Your task to perform on an android device: change timer sound Image 0: 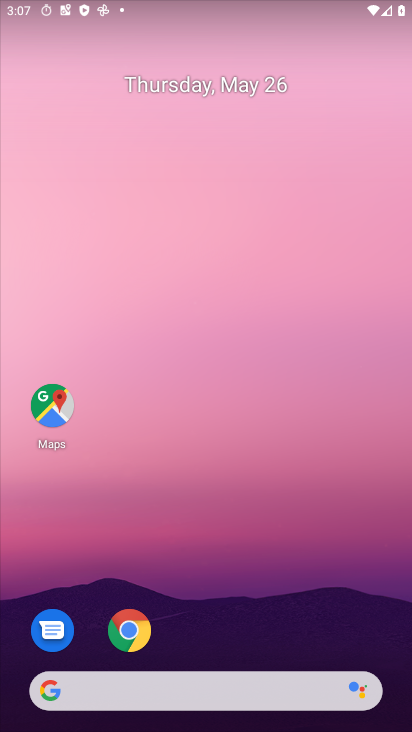
Step 0: drag from (301, 502) to (301, 351)
Your task to perform on an android device: change timer sound Image 1: 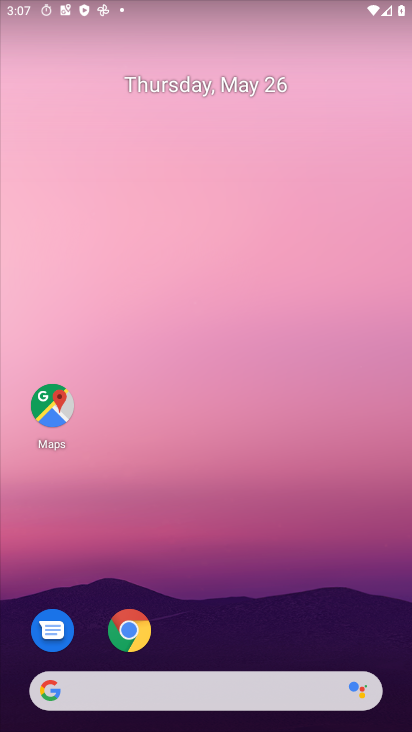
Step 1: drag from (309, 554) to (308, 221)
Your task to perform on an android device: change timer sound Image 2: 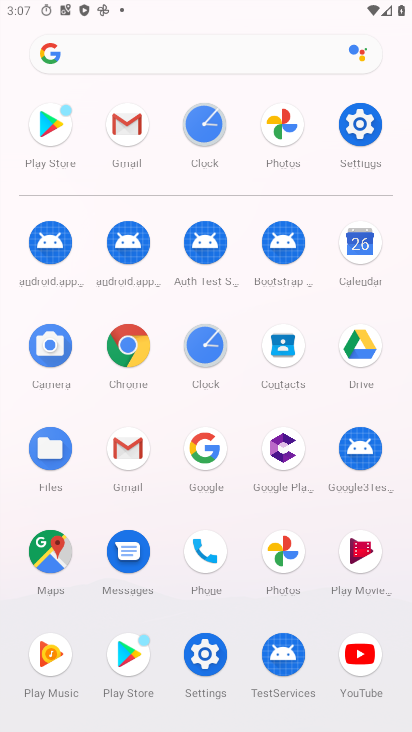
Step 2: click (365, 115)
Your task to perform on an android device: change timer sound Image 3: 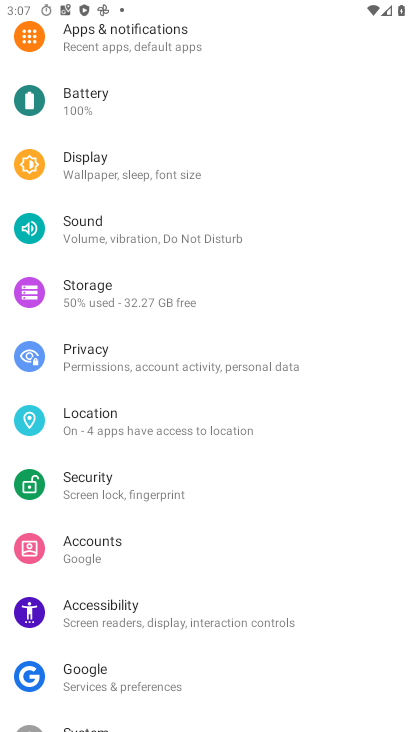
Step 3: press home button
Your task to perform on an android device: change timer sound Image 4: 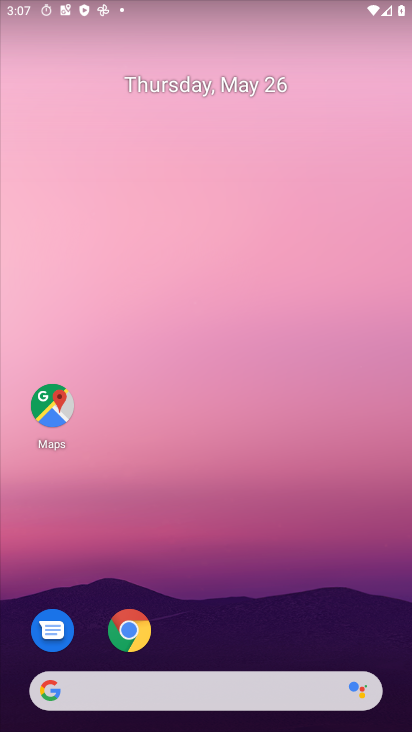
Step 4: drag from (244, 622) to (225, 364)
Your task to perform on an android device: change timer sound Image 5: 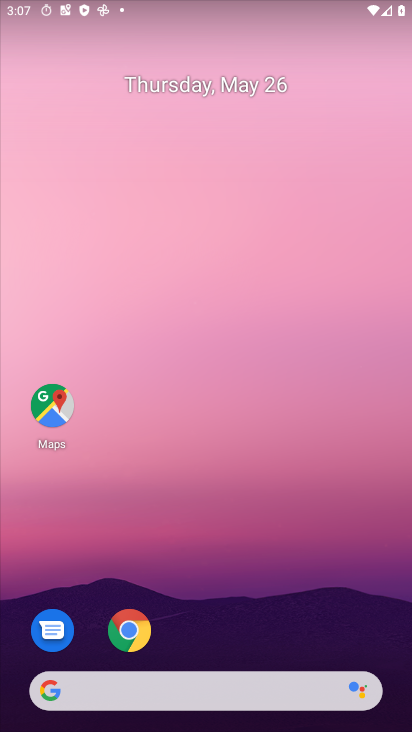
Step 5: drag from (239, 506) to (187, 147)
Your task to perform on an android device: change timer sound Image 6: 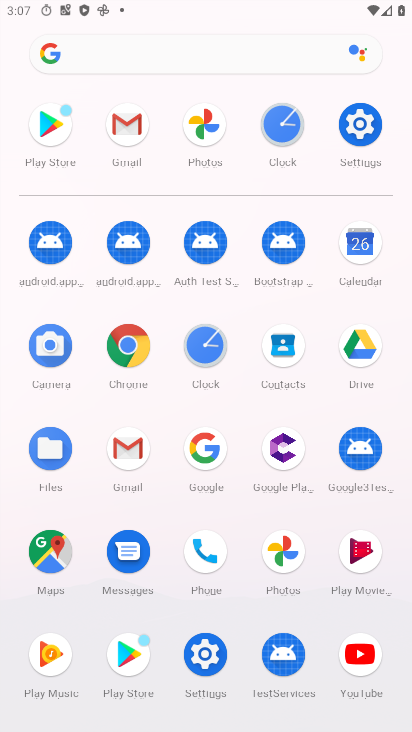
Step 6: click (271, 130)
Your task to perform on an android device: change timer sound Image 7: 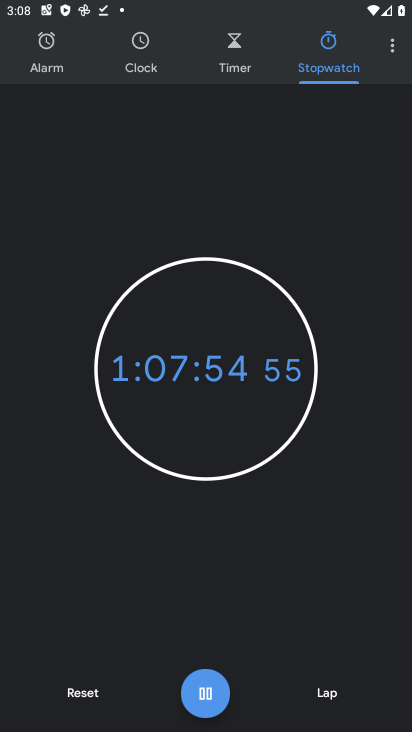
Step 7: click (381, 46)
Your task to perform on an android device: change timer sound Image 8: 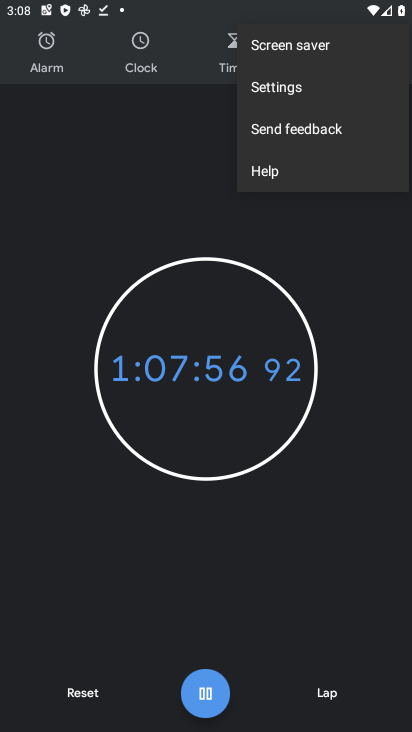
Step 8: click (270, 98)
Your task to perform on an android device: change timer sound Image 9: 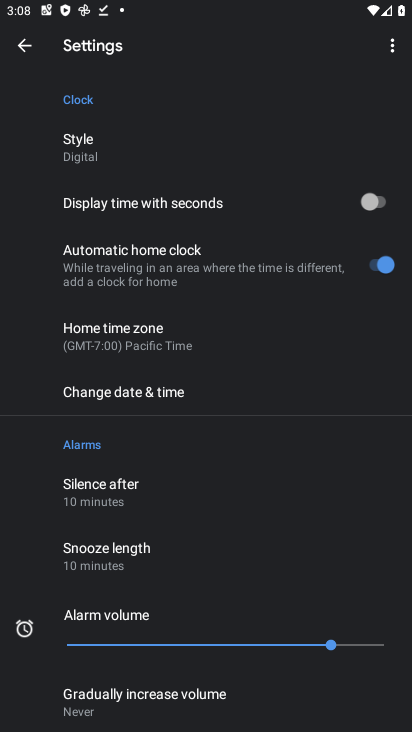
Step 9: drag from (227, 483) to (216, 190)
Your task to perform on an android device: change timer sound Image 10: 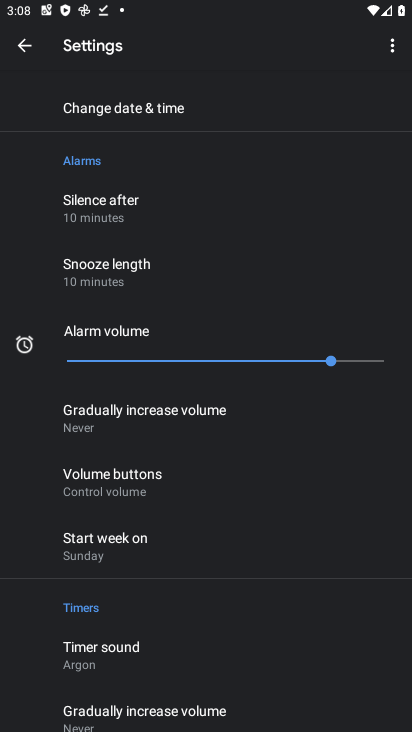
Step 10: drag from (174, 575) to (158, 200)
Your task to perform on an android device: change timer sound Image 11: 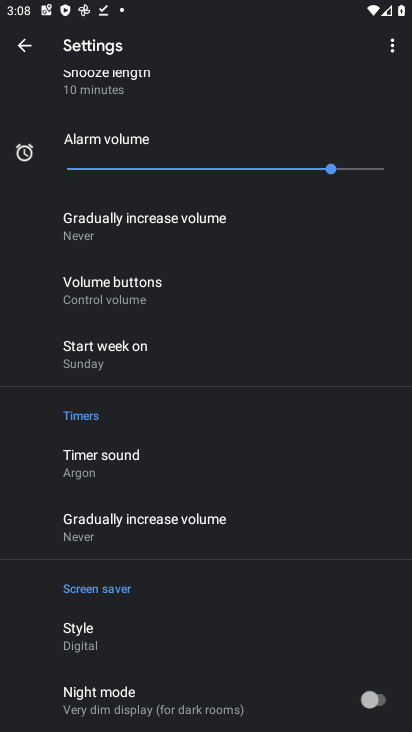
Step 11: click (109, 469)
Your task to perform on an android device: change timer sound Image 12: 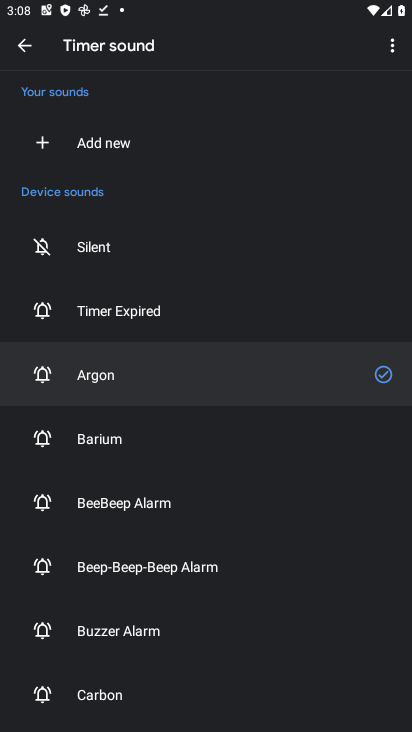
Step 12: click (119, 493)
Your task to perform on an android device: change timer sound Image 13: 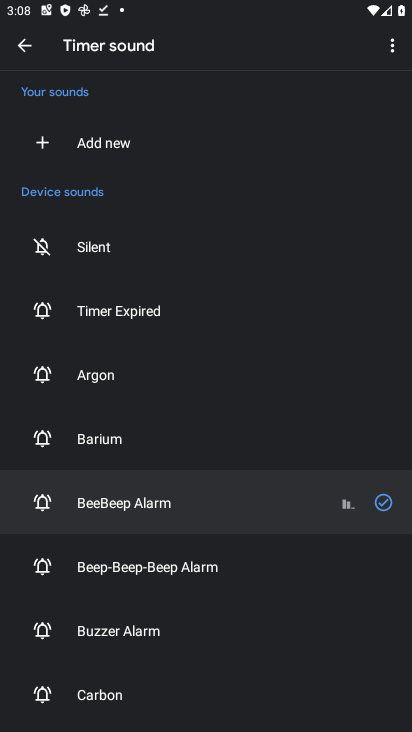
Step 13: task complete